Your task to perform on an android device: turn off improve location accuracy Image 0: 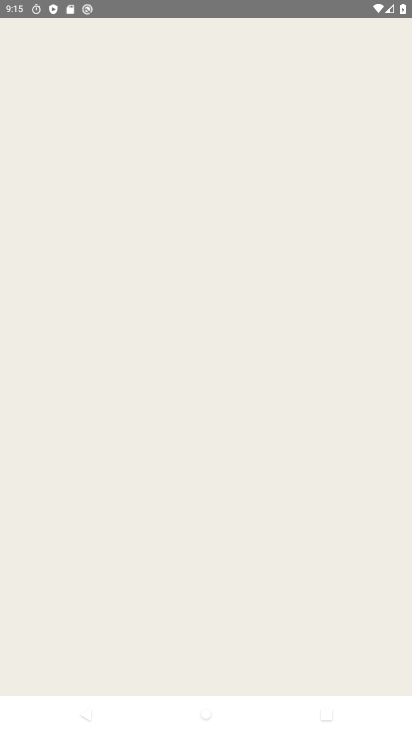
Step 0: press home button
Your task to perform on an android device: turn off improve location accuracy Image 1: 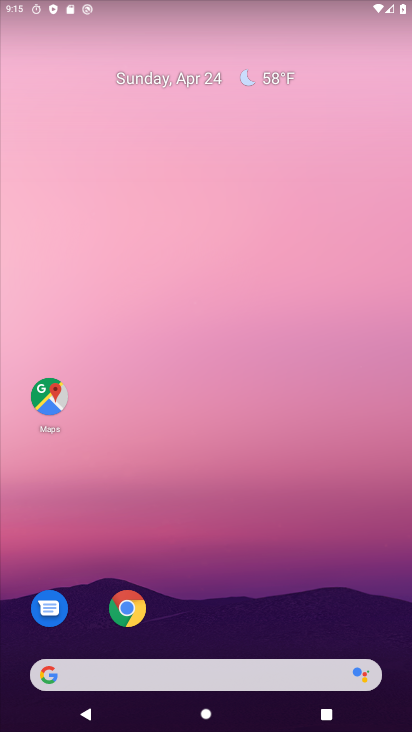
Step 1: drag from (351, 610) to (351, 124)
Your task to perform on an android device: turn off improve location accuracy Image 2: 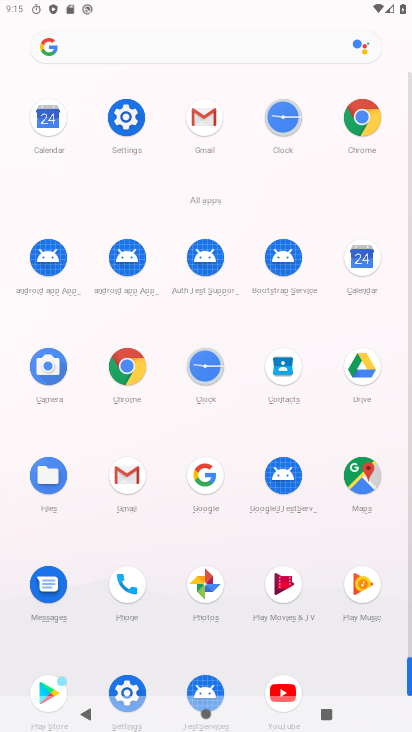
Step 2: drag from (312, 659) to (312, 442)
Your task to perform on an android device: turn off improve location accuracy Image 3: 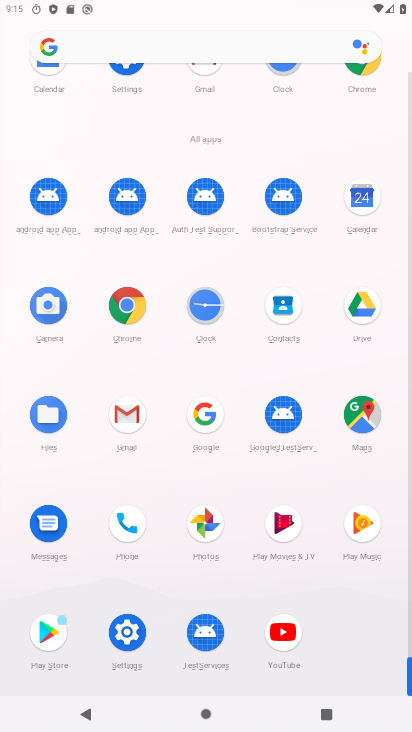
Step 3: click (123, 638)
Your task to perform on an android device: turn off improve location accuracy Image 4: 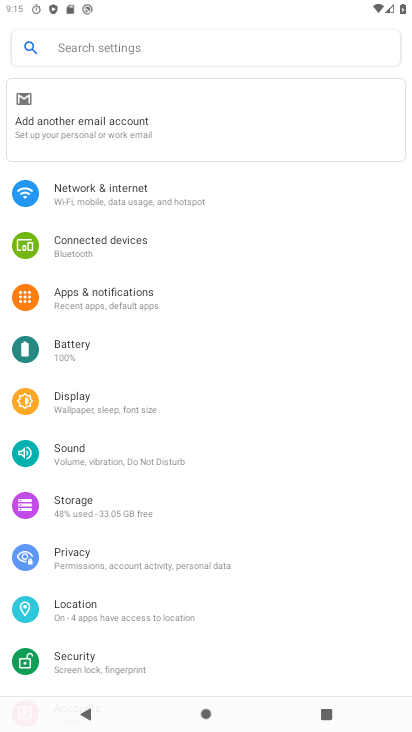
Step 4: drag from (311, 303) to (308, 494)
Your task to perform on an android device: turn off improve location accuracy Image 5: 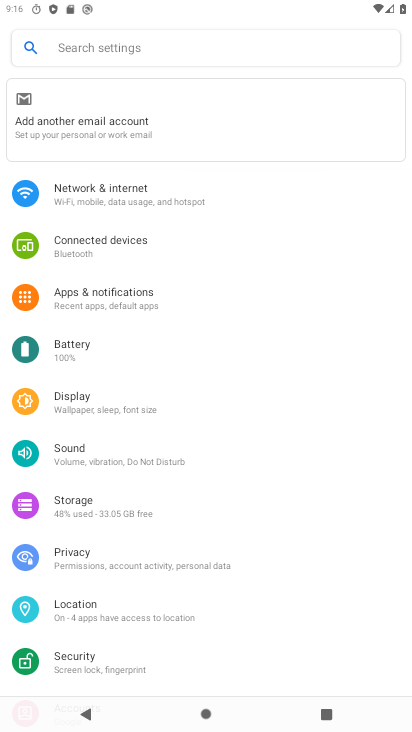
Step 5: drag from (339, 578) to (341, 465)
Your task to perform on an android device: turn off improve location accuracy Image 6: 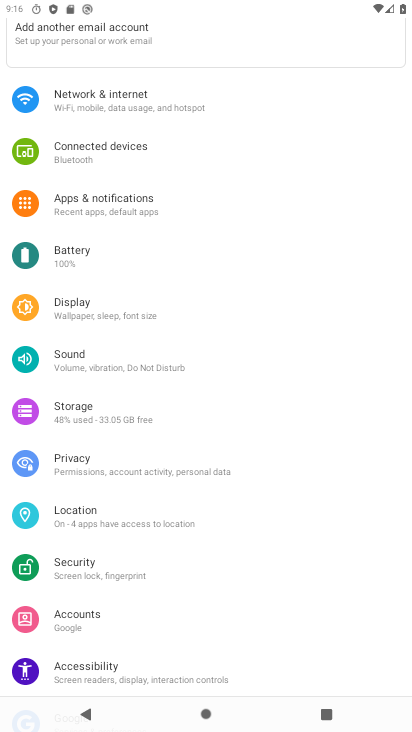
Step 6: drag from (336, 596) to (338, 417)
Your task to perform on an android device: turn off improve location accuracy Image 7: 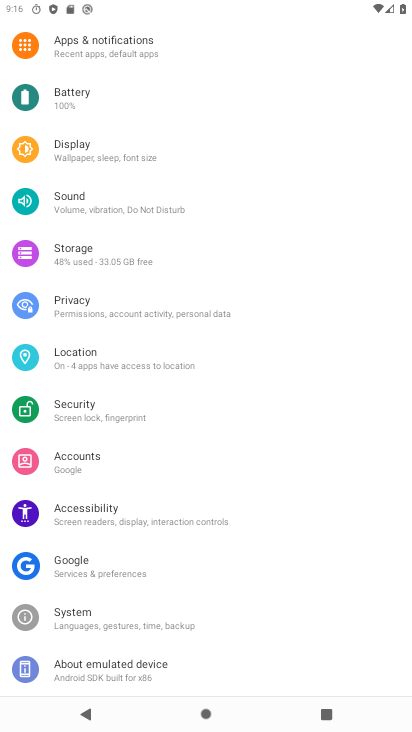
Step 7: drag from (327, 604) to (319, 460)
Your task to perform on an android device: turn off improve location accuracy Image 8: 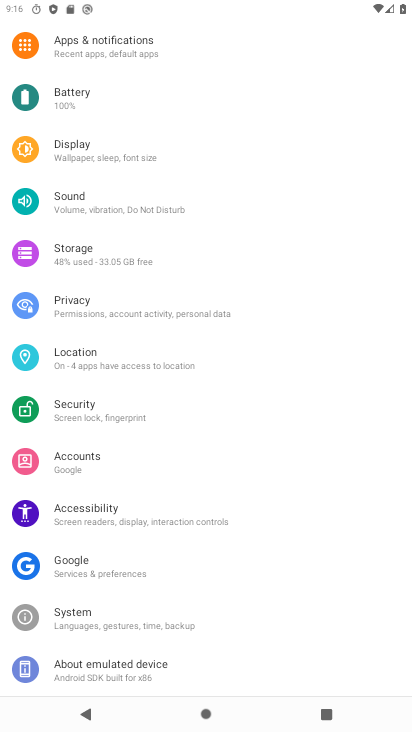
Step 8: drag from (309, 307) to (297, 438)
Your task to perform on an android device: turn off improve location accuracy Image 9: 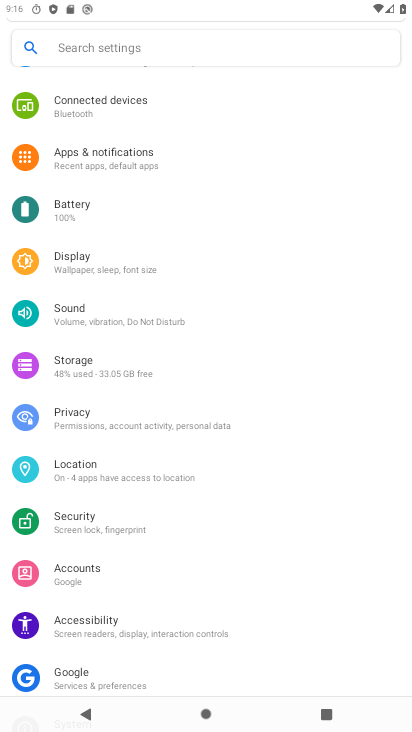
Step 9: drag from (290, 299) to (284, 441)
Your task to perform on an android device: turn off improve location accuracy Image 10: 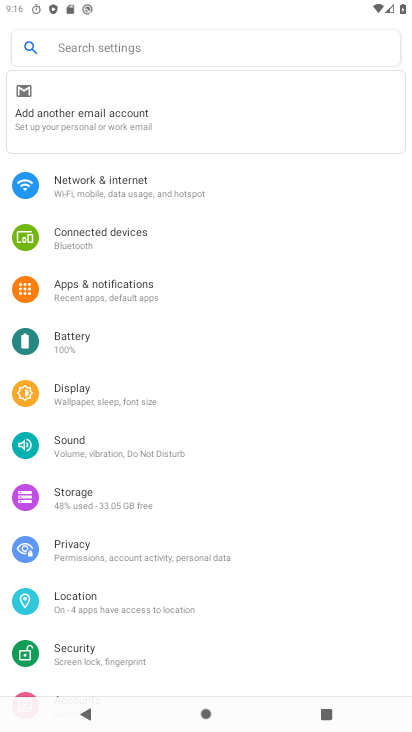
Step 10: click (146, 603)
Your task to perform on an android device: turn off improve location accuracy Image 11: 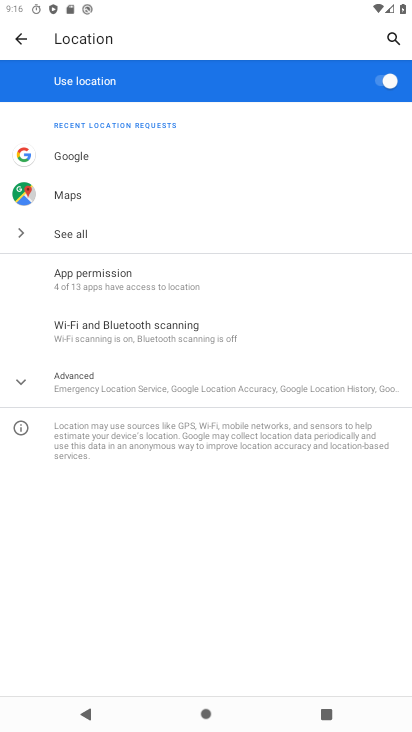
Step 11: click (237, 383)
Your task to perform on an android device: turn off improve location accuracy Image 12: 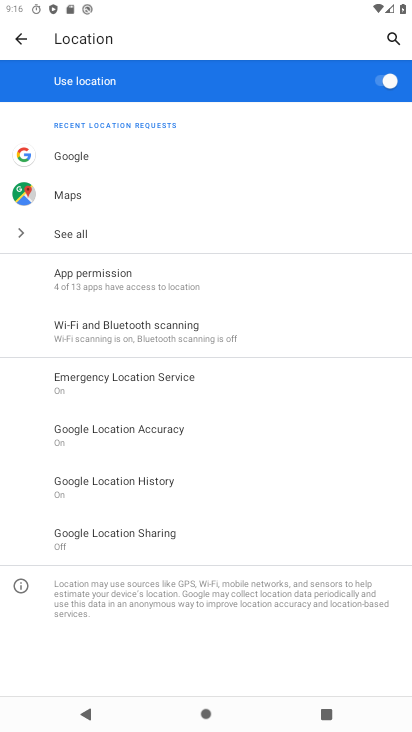
Step 12: drag from (262, 536) to (269, 370)
Your task to perform on an android device: turn off improve location accuracy Image 13: 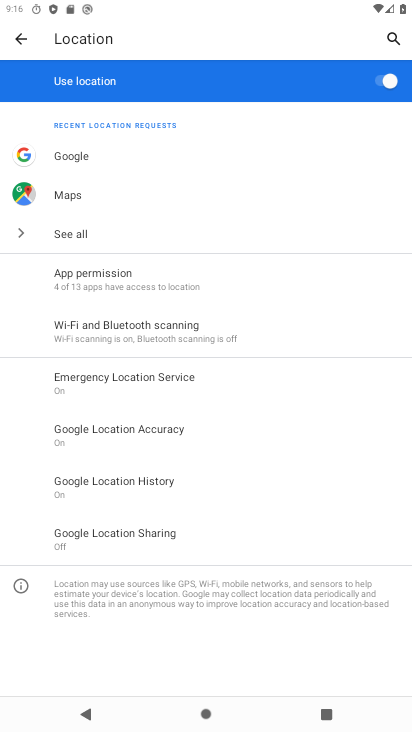
Step 13: click (127, 424)
Your task to perform on an android device: turn off improve location accuracy Image 14: 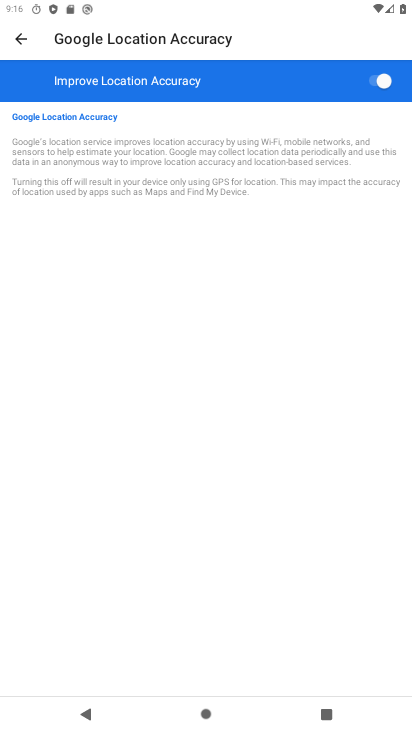
Step 14: click (378, 79)
Your task to perform on an android device: turn off improve location accuracy Image 15: 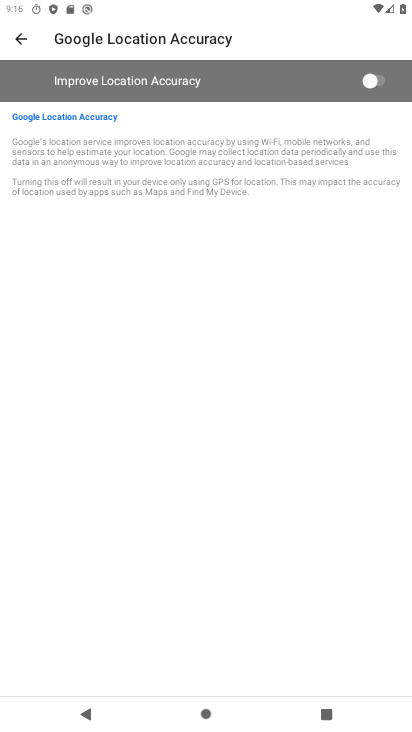
Step 15: task complete